Your task to perform on an android device: toggle wifi Image 0: 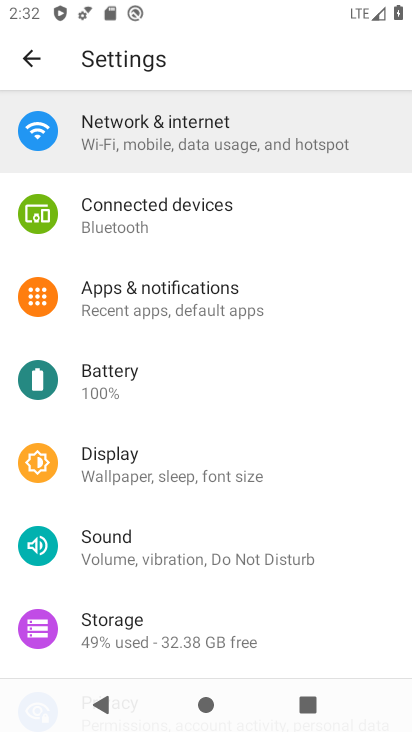
Step 0: click (203, 149)
Your task to perform on an android device: toggle wifi Image 1: 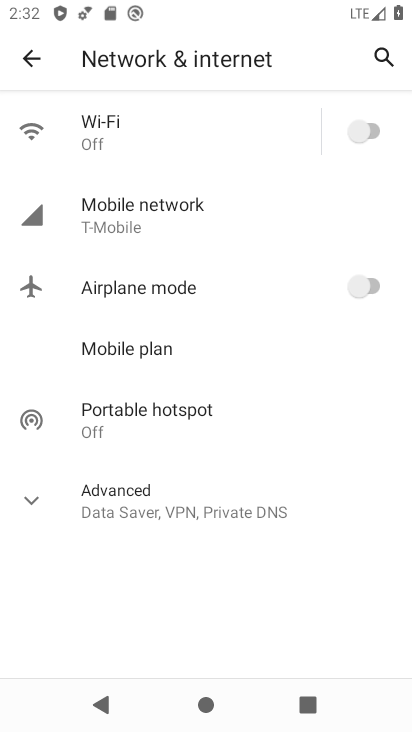
Step 1: click (180, 121)
Your task to perform on an android device: toggle wifi Image 2: 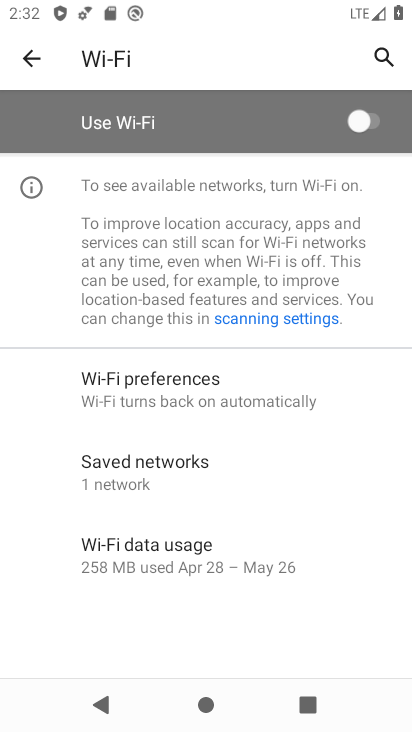
Step 2: click (346, 119)
Your task to perform on an android device: toggle wifi Image 3: 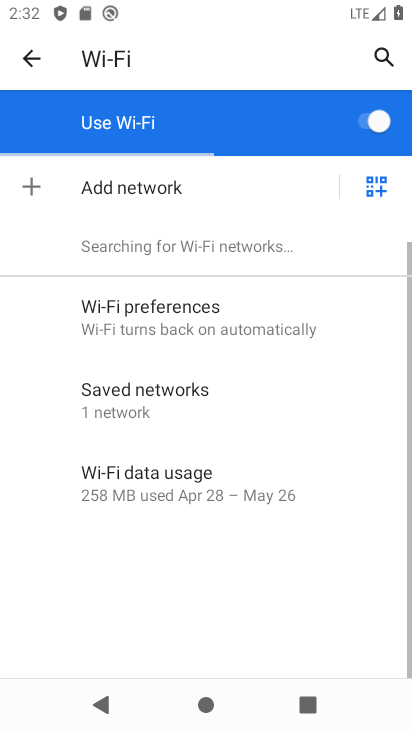
Step 3: task complete